Your task to perform on an android device: Open Reddit.com Image 0: 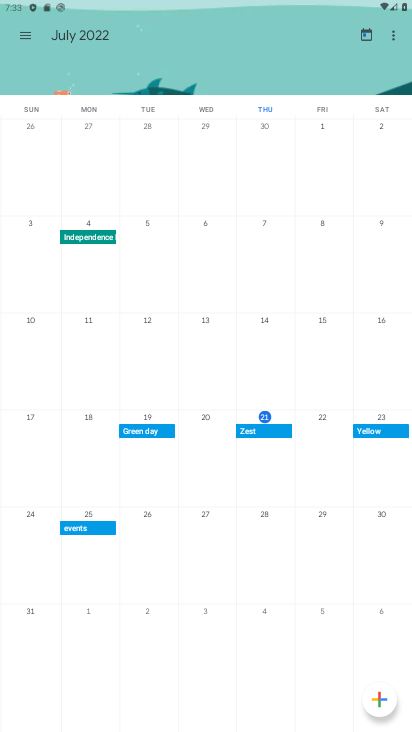
Step 0: drag from (329, 463) to (334, 377)
Your task to perform on an android device: Open Reddit.com Image 1: 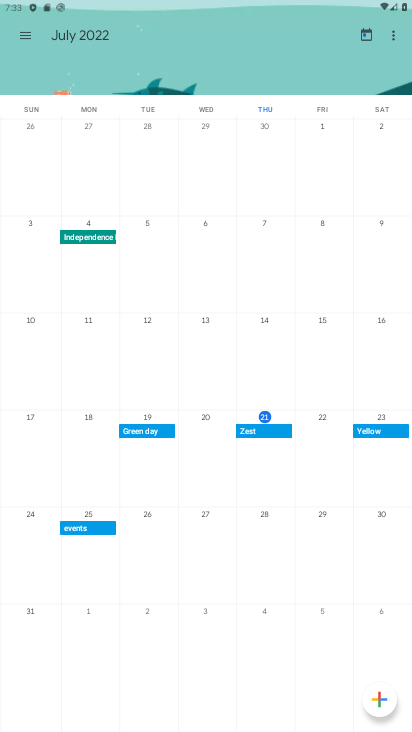
Step 1: press home button
Your task to perform on an android device: Open Reddit.com Image 2: 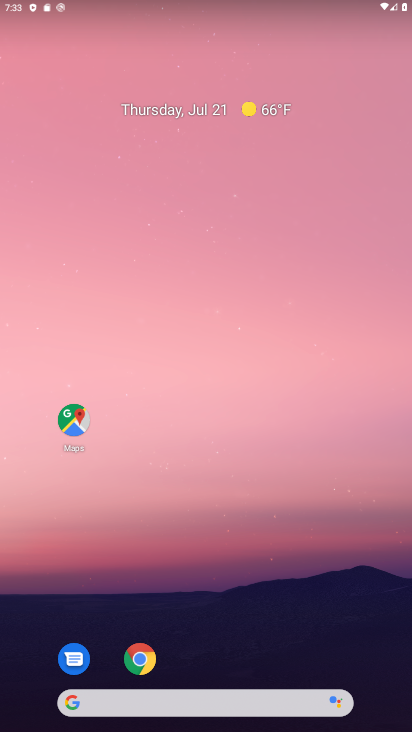
Step 2: drag from (202, 651) to (278, 289)
Your task to perform on an android device: Open Reddit.com Image 3: 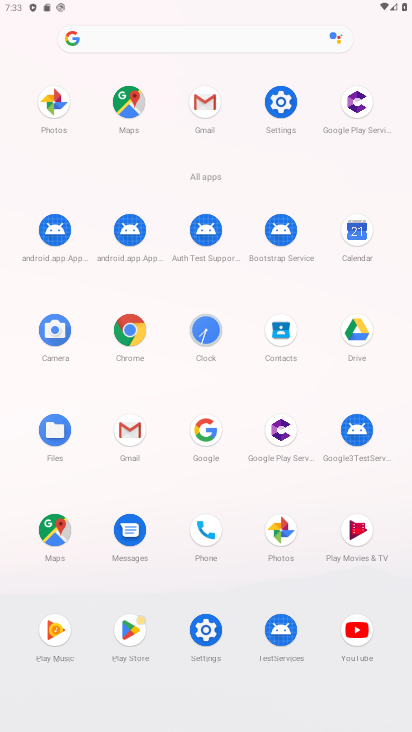
Step 3: click (121, 42)
Your task to perform on an android device: Open Reddit.com Image 4: 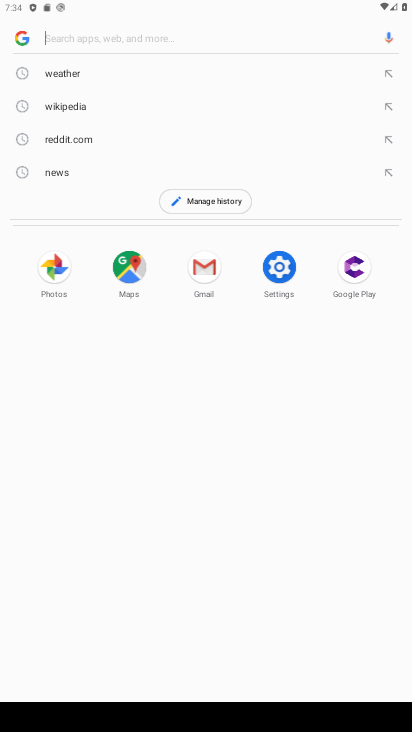
Step 4: click (65, 136)
Your task to perform on an android device: Open Reddit.com Image 5: 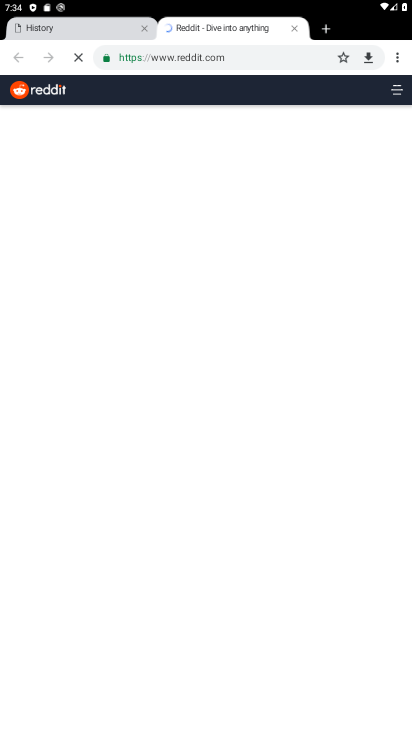
Step 5: task complete